Your task to perform on an android device: toggle sleep mode Image 0: 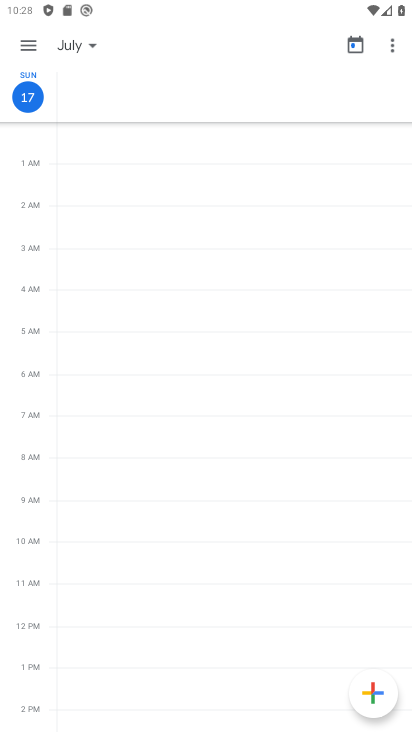
Step 0: press home button
Your task to perform on an android device: toggle sleep mode Image 1: 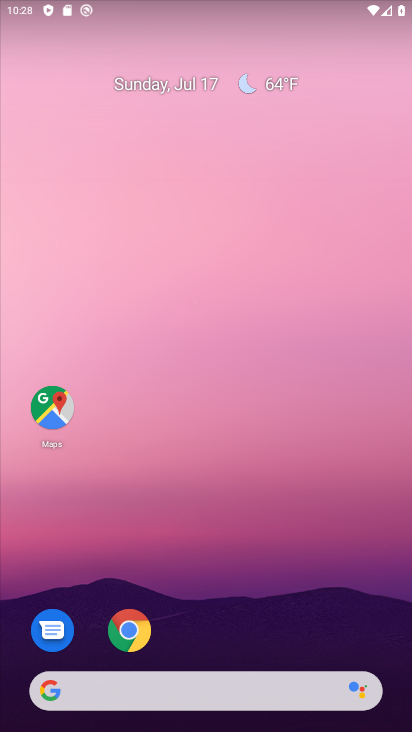
Step 1: drag from (389, 610) to (332, 105)
Your task to perform on an android device: toggle sleep mode Image 2: 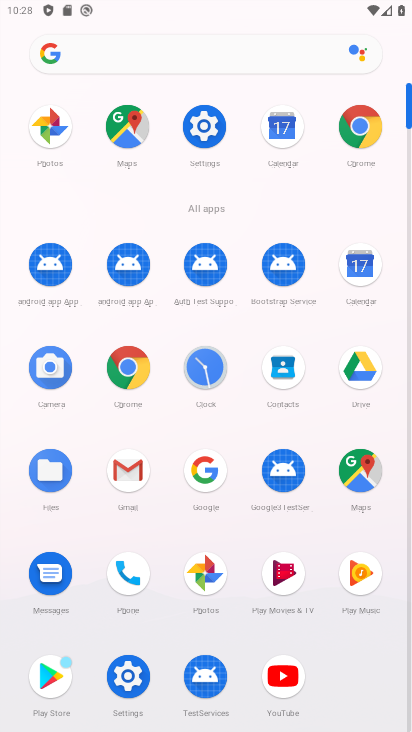
Step 2: click (128, 676)
Your task to perform on an android device: toggle sleep mode Image 3: 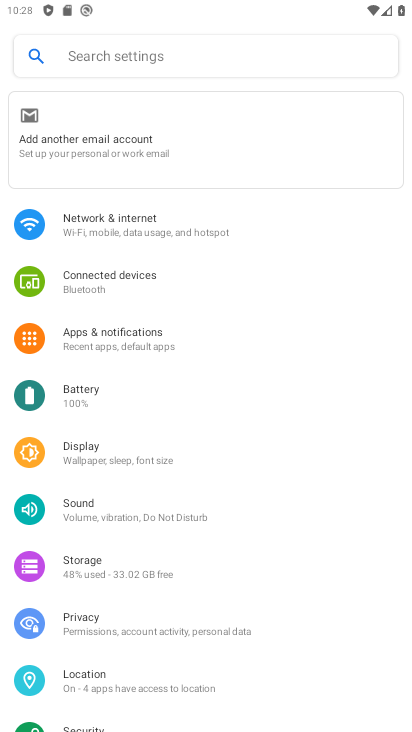
Step 3: click (95, 459)
Your task to perform on an android device: toggle sleep mode Image 4: 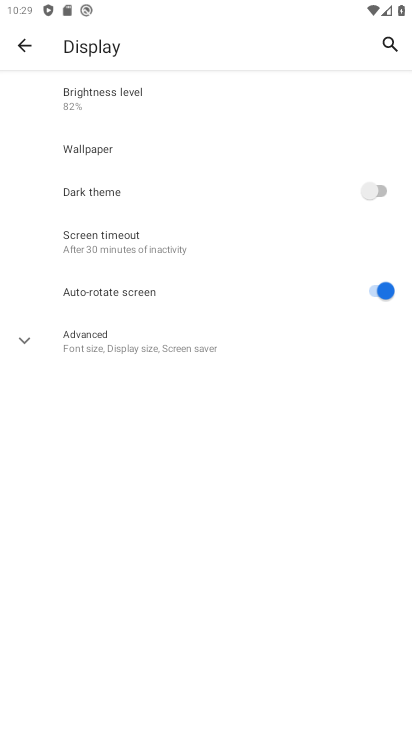
Step 4: click (24, 338)
Your task to perform on an android device: toggle sleep mode Image 5: 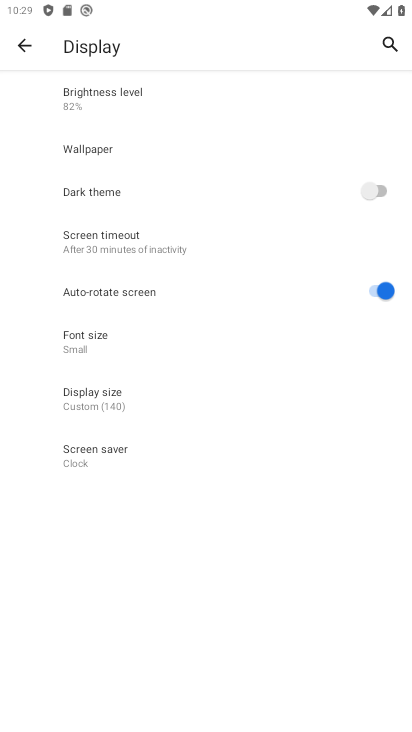
Step 5: task complete